Your task to perform on an android device: Turn off the flashlight Image 0: 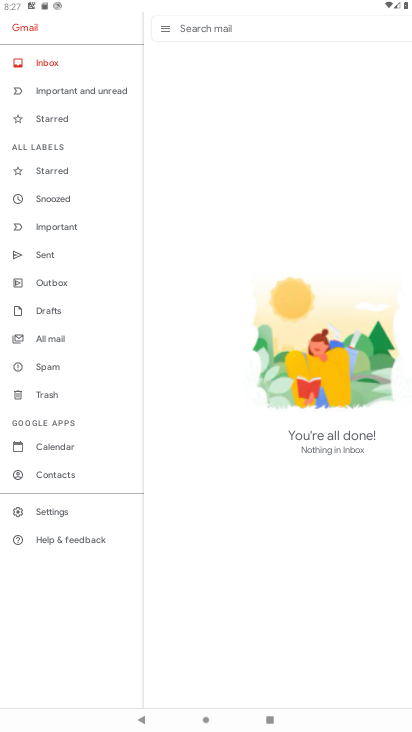
Step 0: press home button
Your task to perform on an android device: Turn off the flashlight Image 1: 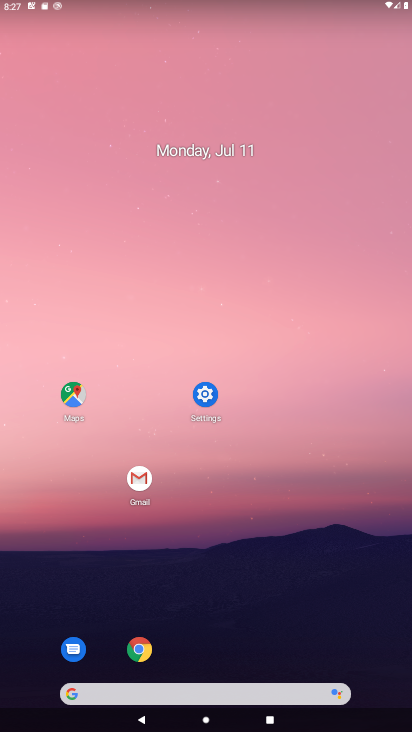
Step 1: click (208, 399)
Your task to perform on an android device: Turn off the flashlight Image 2: 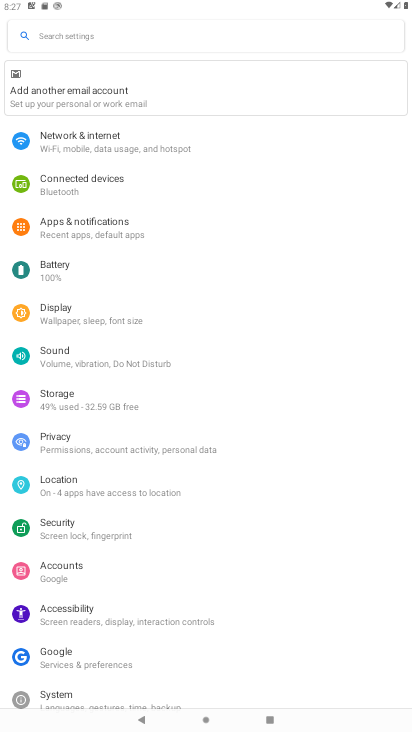
Step 2: click (41, 308)
Your task to perform on an android device: Turn off the flashlight Image 3: 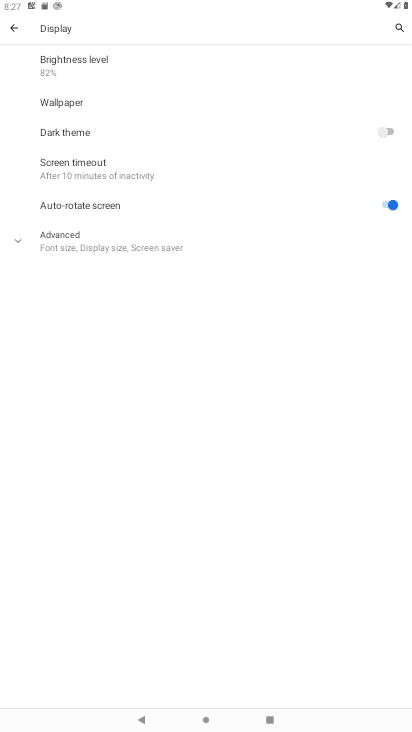
Step 3: task complete